Your task to perform on an android device: Go to internet settings Image 0: 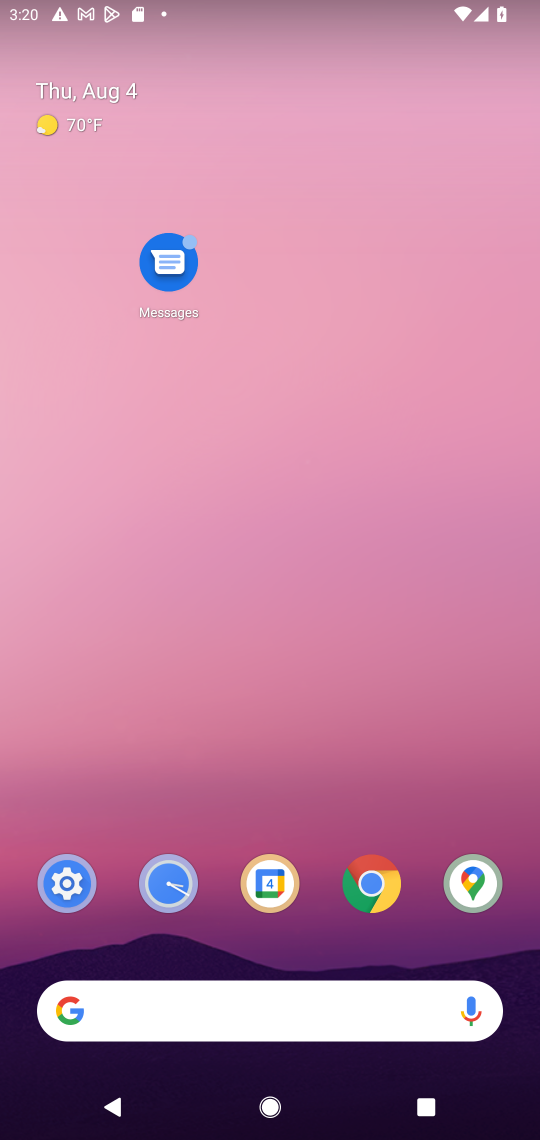
Step 0: drag from (238, 922) to (243, 181)
Your task to perform on an android device: Go to internet settings Image 1: 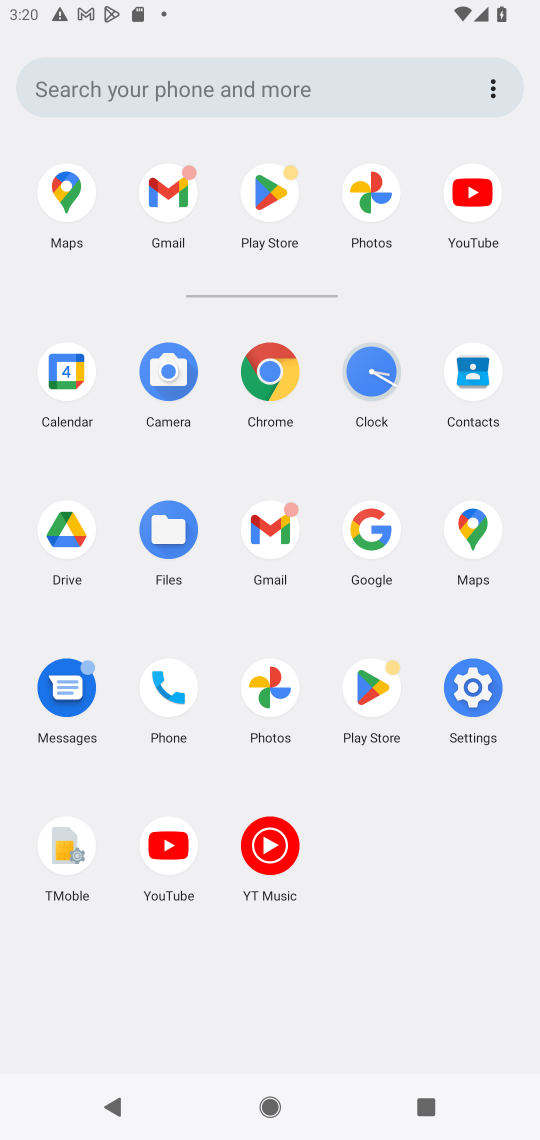
Step 1: click (486, 675)
Your task to perform on an android device: Go to internet settings Image 2: 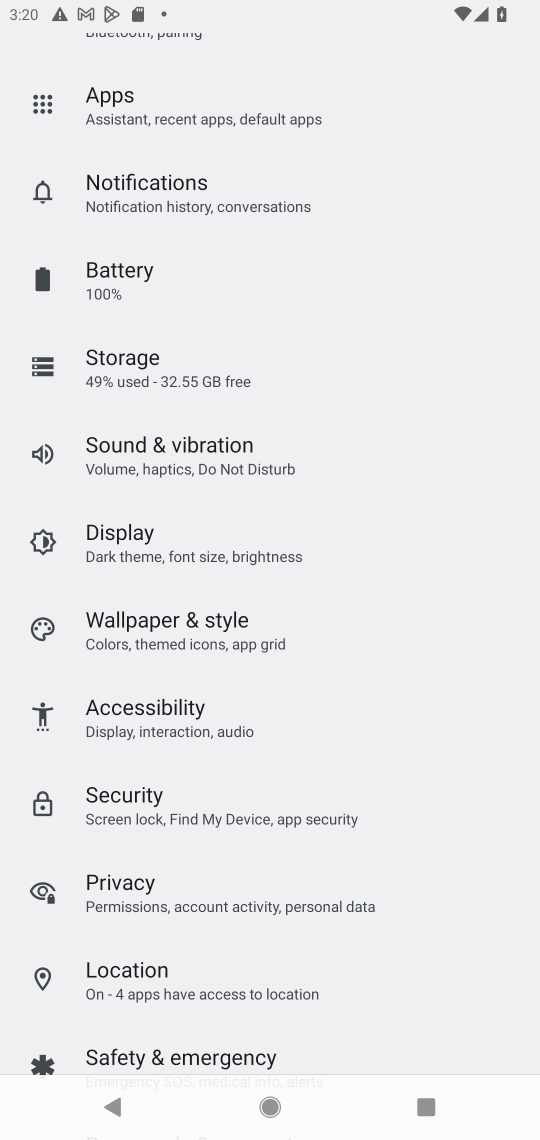
Step 2: drag from (249, 271) to (266, 863)
Your task to perform on an android device: Go to internet settings Image 3: 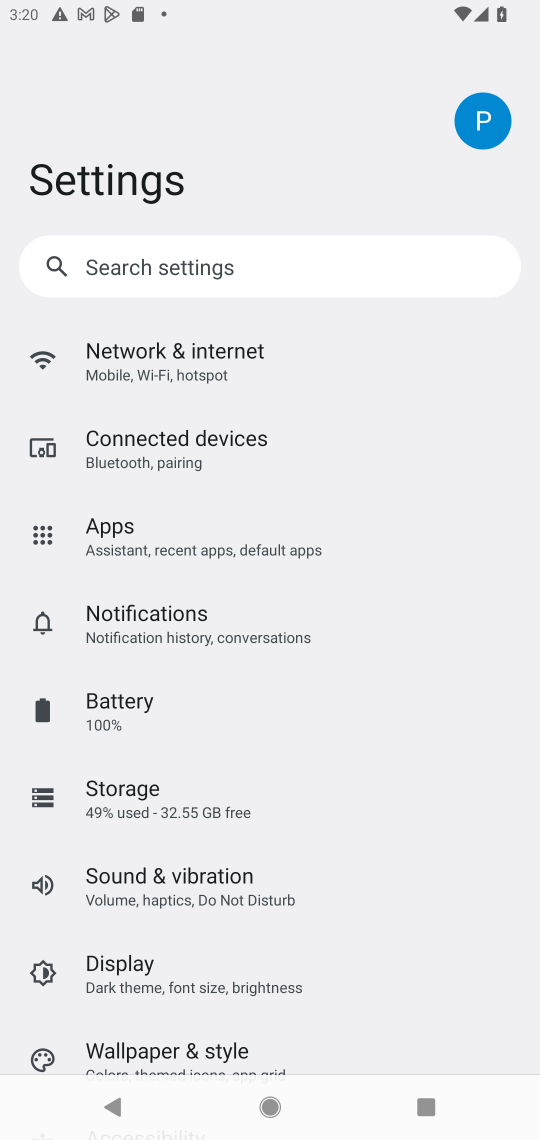
Step 3: drag from (161, 163) to (164, 766)
Your task to perform on an android device: Go to internet settings Image 4: 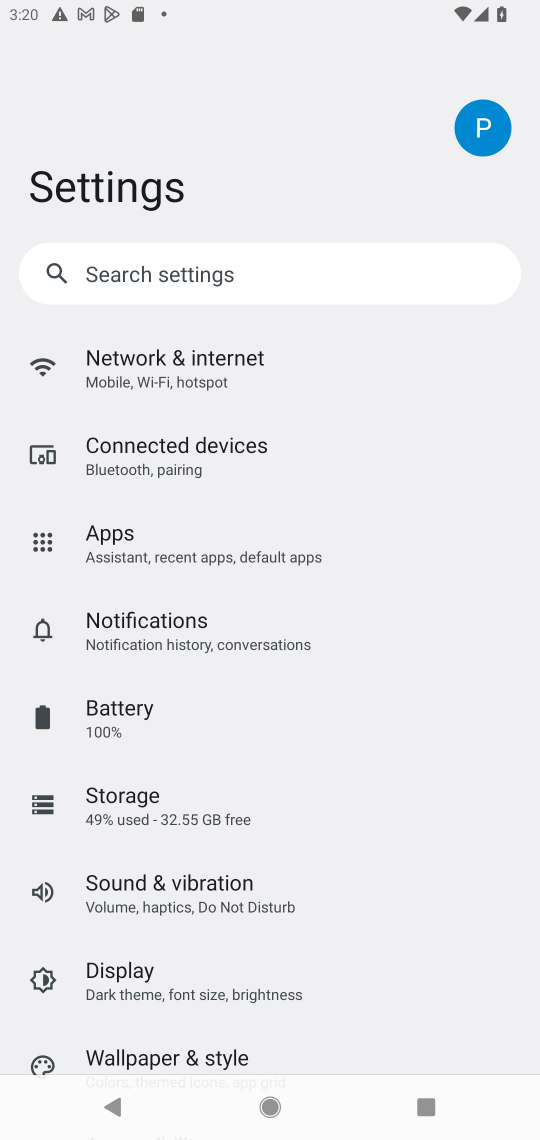
Step 4: click (184, 371)
Your task to perform on an android device: Go to internet settings Image 5: 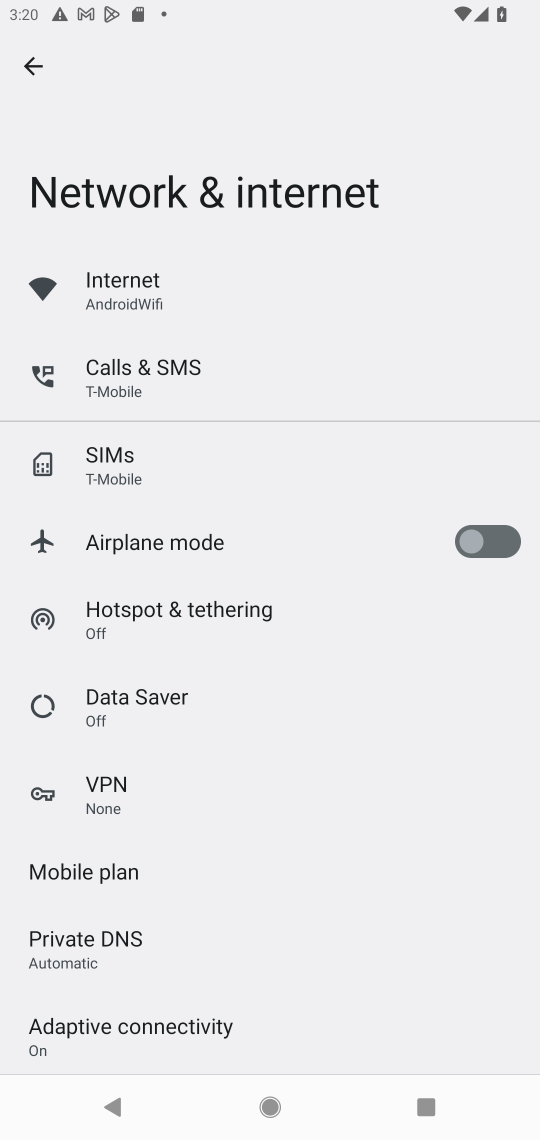
Step 5: click (112, 291)
Your task to perform on an android device: Go to internet settings Image 6: 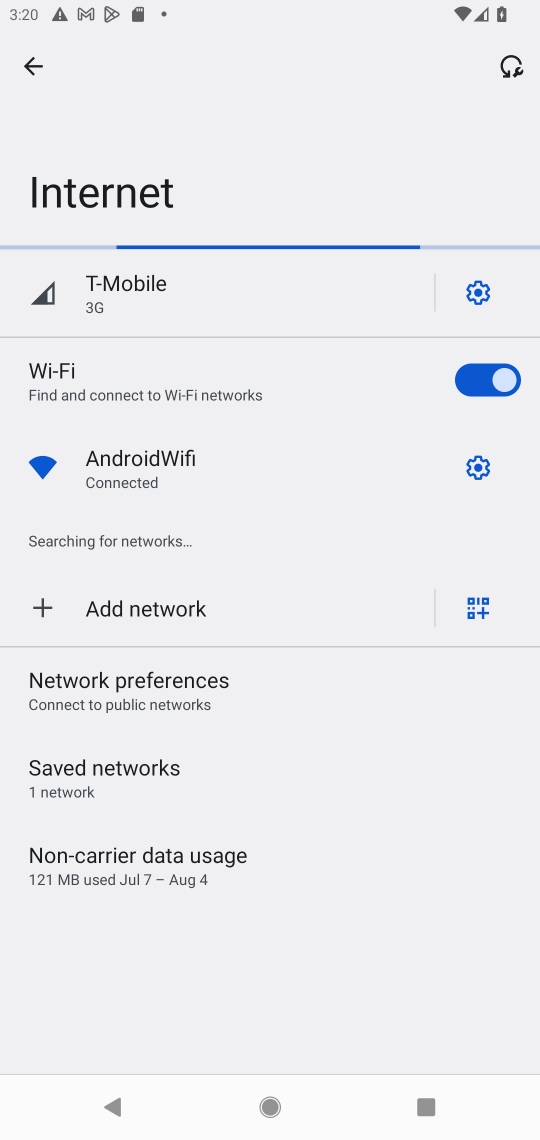
Step 6: task complete